Your task to perform on an android device: change notifications settings Image 0: 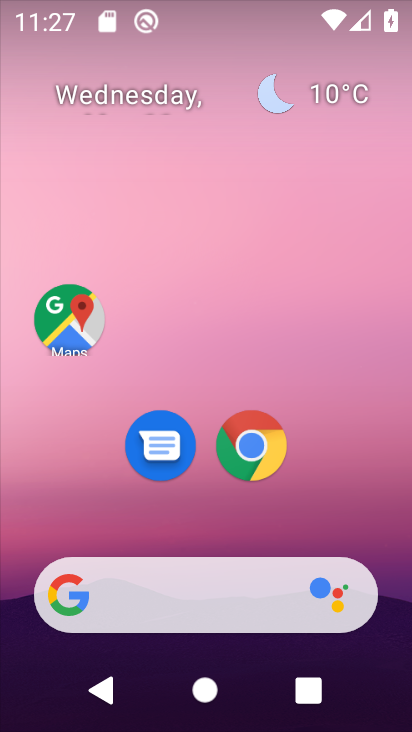
Step 0: drag from (210, 477) to (311, 41)
Your task to perform on an android device: change notifications settings Image 1: 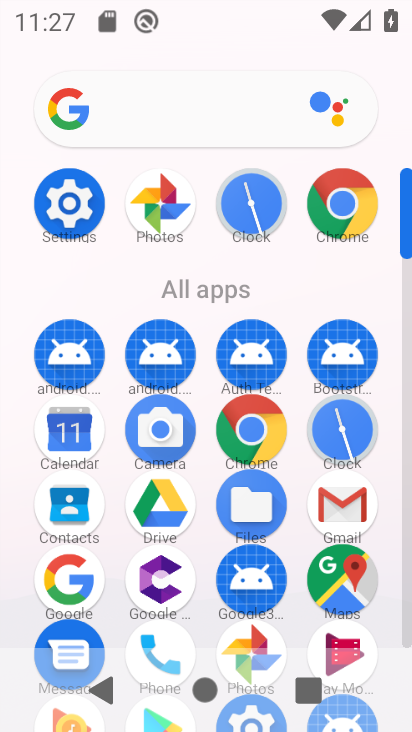
Step 1: click (66, 201)
Your task to perform on an android device: change notifications settings Image 2: 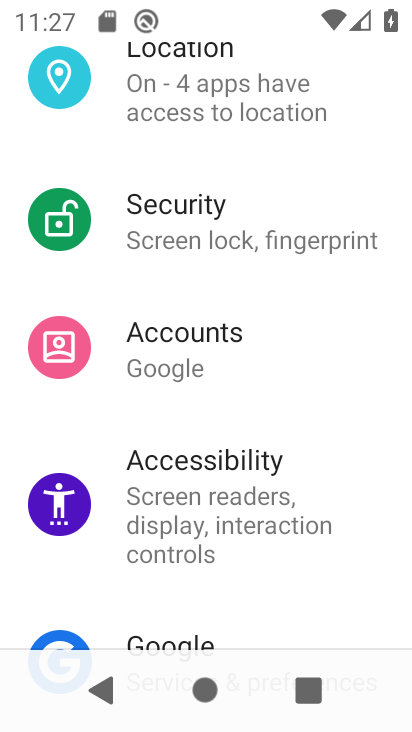
Step 2: drag from (237, 180) to (234, 710)
Your task to perform on an android device: change notifications settings Image 3: 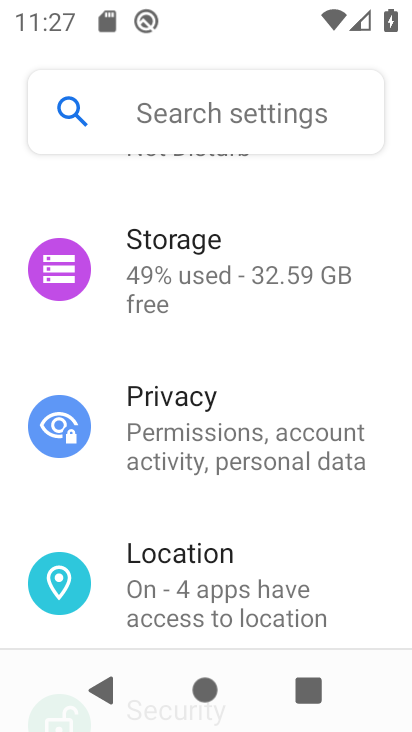
Step 3: drag from (192, 249) to (186, 715)
Your task to perform on an android device: change notifications settings Image 4: 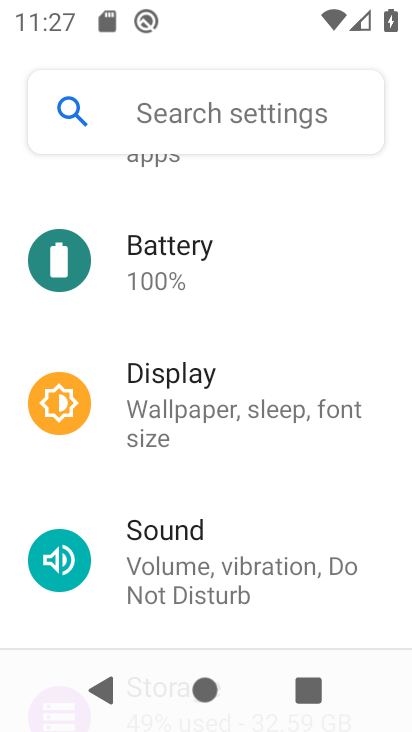
Step 4: drag from (205, 283) to (218, 731)
Your task to perform on an android device: change notifications settings Image 5: 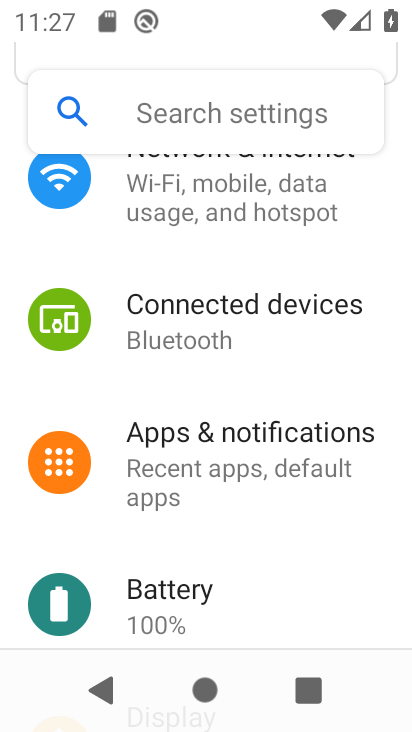
Step 5: click (259, 467)
Your task to perform on an android device: change notifications settings Image 6: 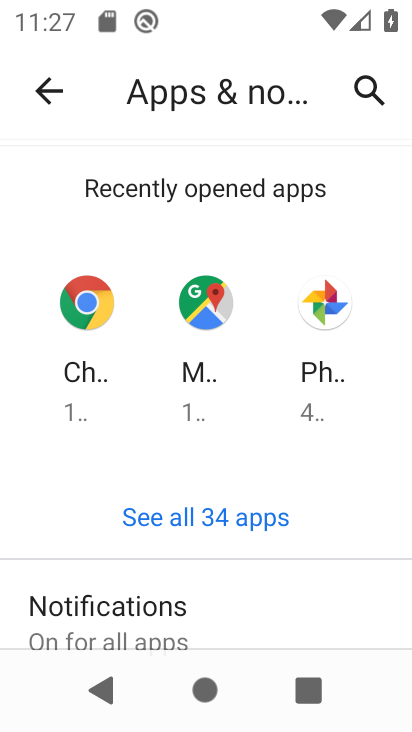
Step 6: drag from (201, 620) to (281, 273)
Your task to perform on an android device: change notifications settings Image 7: 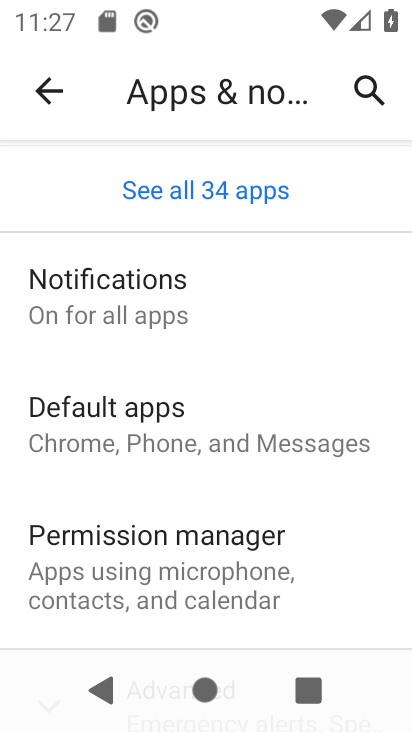
Step 7: click (163, 279)
Your task to perform on an android device: change notifications settings Image 8: 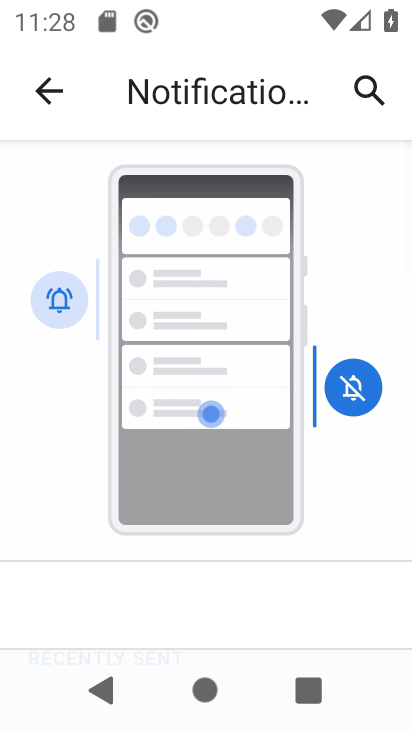
Step 8: drag from (206, 554) to (288, 71)
Your task to perform on an android device: change notifications settings Image 9: 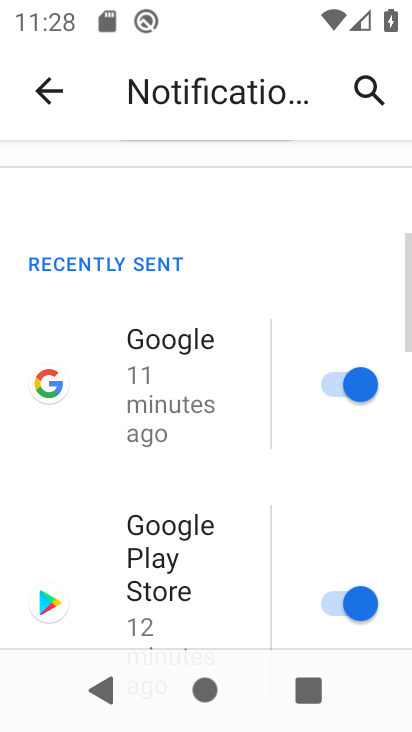
Step 9: drag from (222, 556) to (289, 107)
Your task to perform on an android device: change notifications settings Image 10: 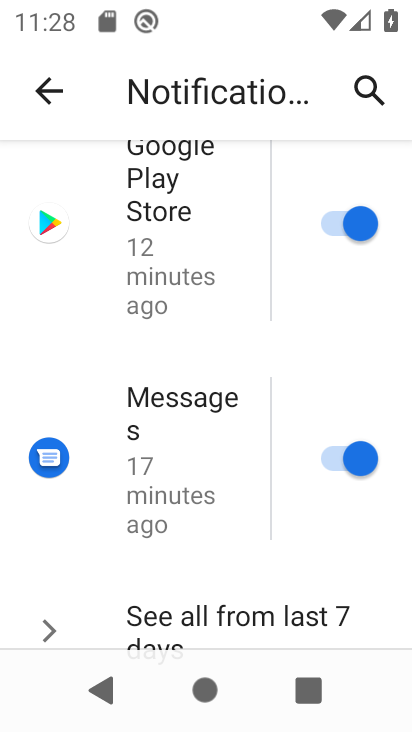
Step 10: drag from (213, 592) to (287, 113)
Your task to perform on an android device: change notifications settings Image 11: 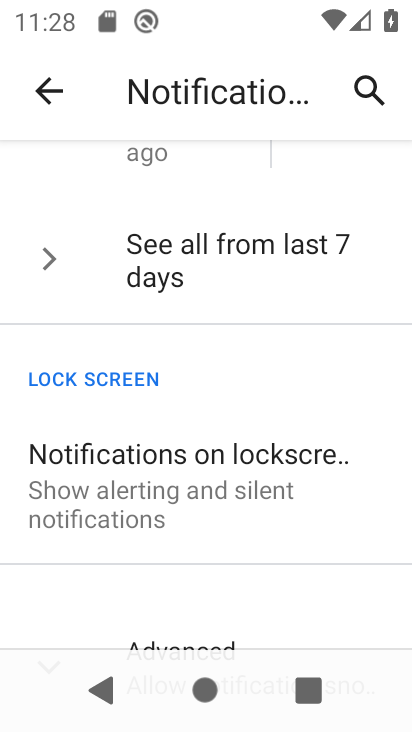
Step 11: drag from (173, 513) to (267, 51)
Your task to perform on an android device: change notifications settings Image 12: 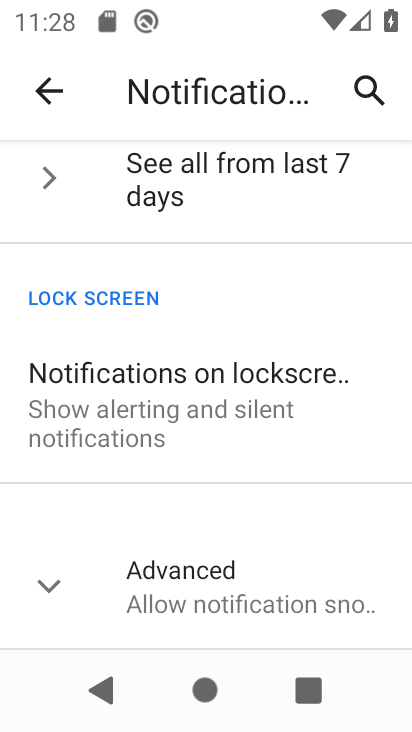
Step 12: drag from (237, 586) to (285, 192)
Your task to perform on an android device: change notifications settings Image 13: 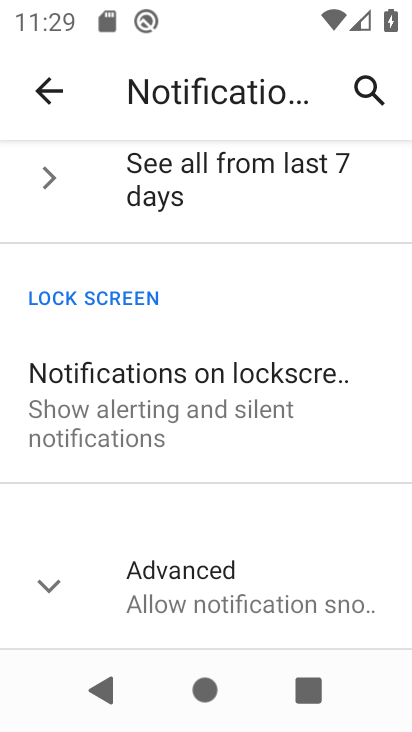
Step 13: drag from (223, 582) to (310, 86)
Your task to perform on an android device: change notifications settings Image 14: 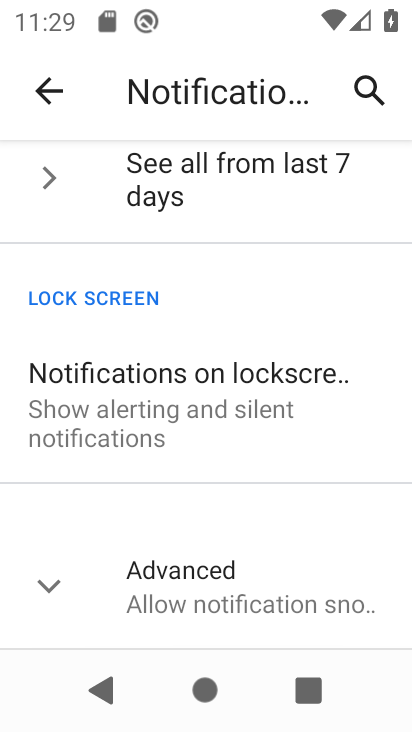
Step 14: click (181, 588)
Your task to perform on an android device: change notifications settings Image 15: 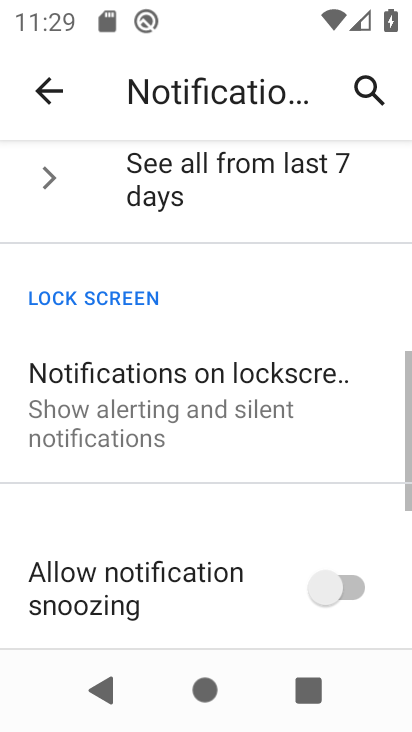
Step 15: drag from (196, 587) to (282, 138)
Your task to perform on an android device: change notifications settings Image 16: 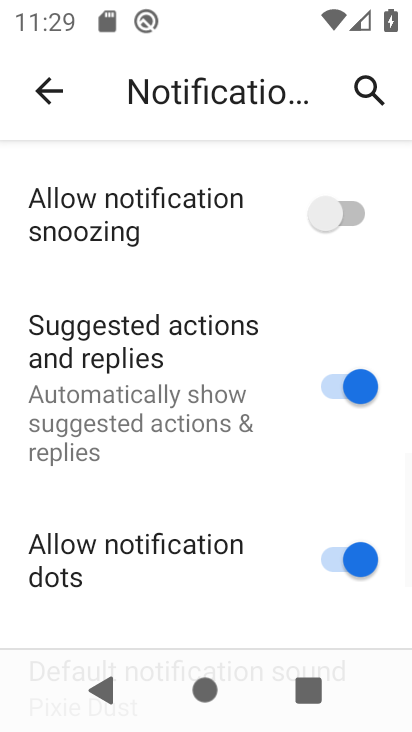
Step 16: drag from (196, 541) to (285, 67)
Your task to perform on an android device: change notifications settings Image 17: 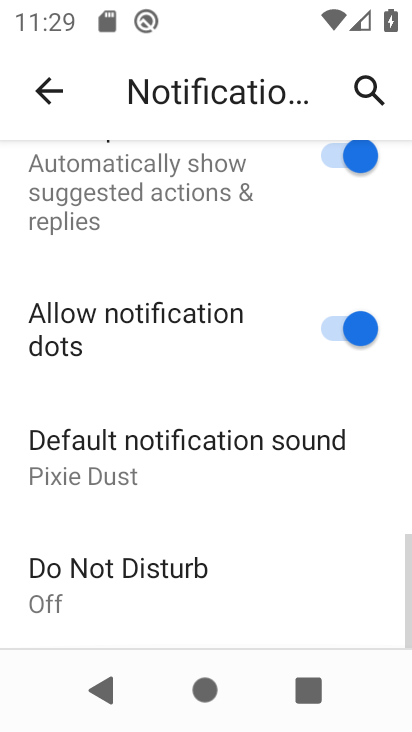
Step 17: drag from (226, 208) to (159, 705)
Your task to perform on an android device: change notifications settings Image 18: 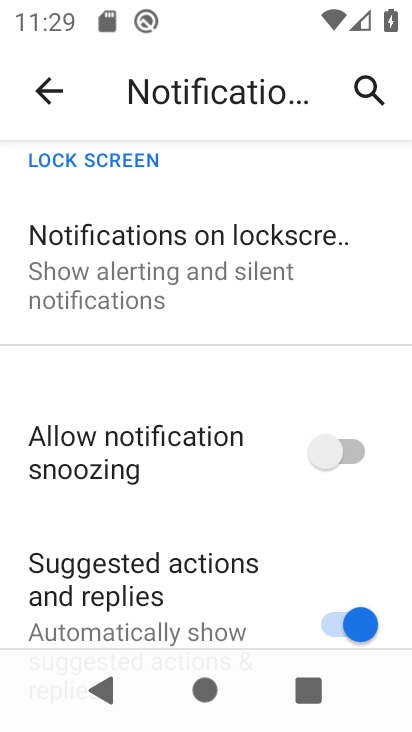
Step 18: drag from (270, 215) to (214, 572)
Your task to perform on an android device: change notifications settings Image 19: 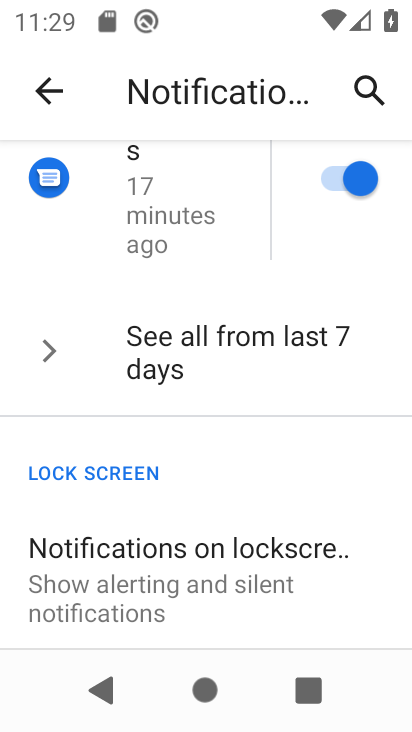
Step 19: drag from (192, 384) to (161, 641)
Your task to perform on an android device: change notifications settings Image 20: 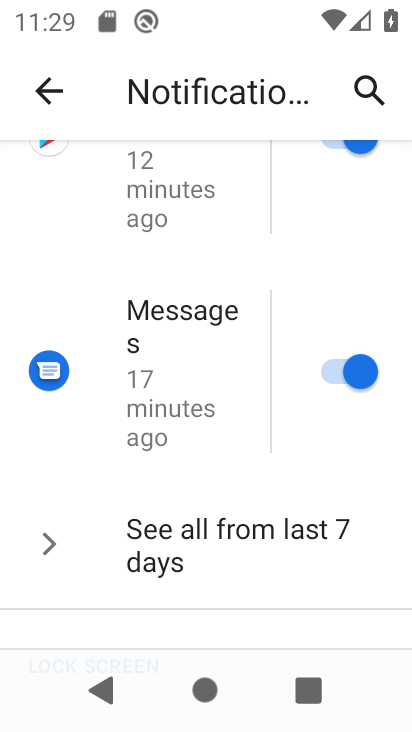
Step 20: drag from (165, 246) to (144, 597)
Your task to perform on an android device: change notifications settings Image 21: 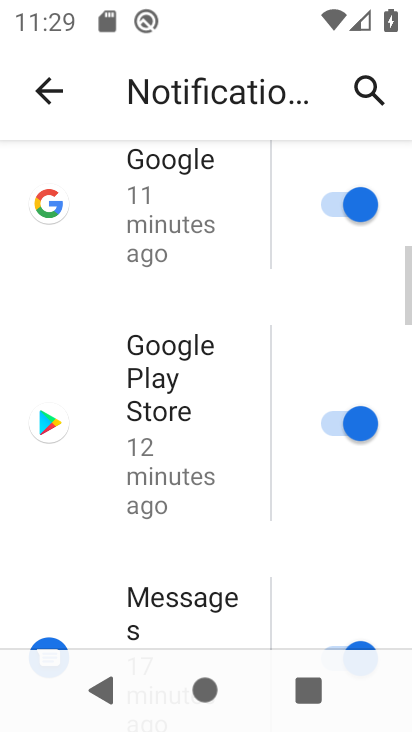
Step 21: drag from (179, 228) to (167, 658)
Your task to perform on an android device: change notifications settings Image 22: 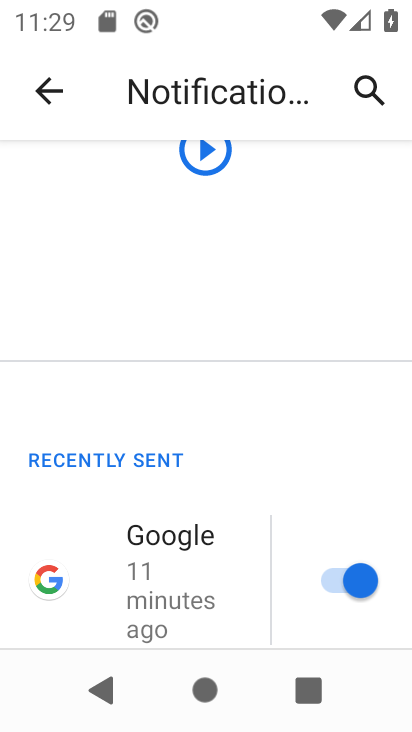
Step 22: drag from (192, 300) to (149, 722)
Your task to perform on an android device: change notifications settings Image 23: 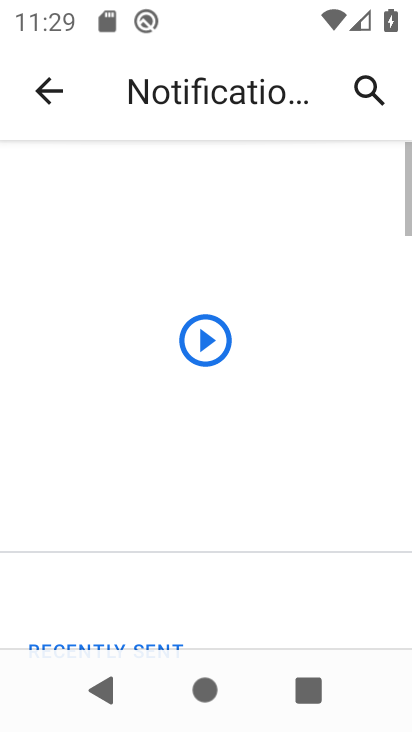
Step 23: drag from (149, 481) to (271, 61)
Your task to perform on an android device: change notifications settings Image 24: 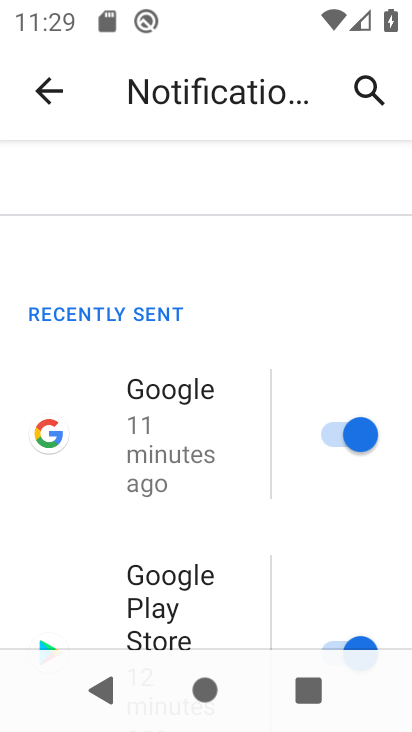
Step 24: drag from (199, 521) to (287, 87)
Your task to perform on an android device: change notifications settings Image 25: 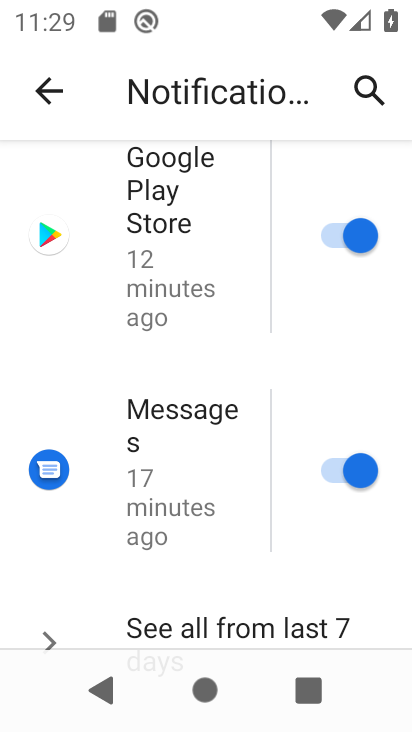
Step 25: drag from (196, 245) to (164, 720)
Your task to perform on an android device: change notifications settings Image 26: 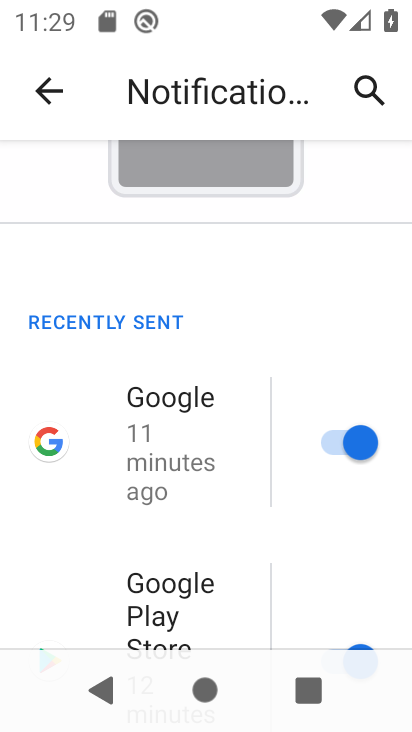
Step 26: click (354, 444)
Your task to perform on an android device: change notifications settings Image 27: 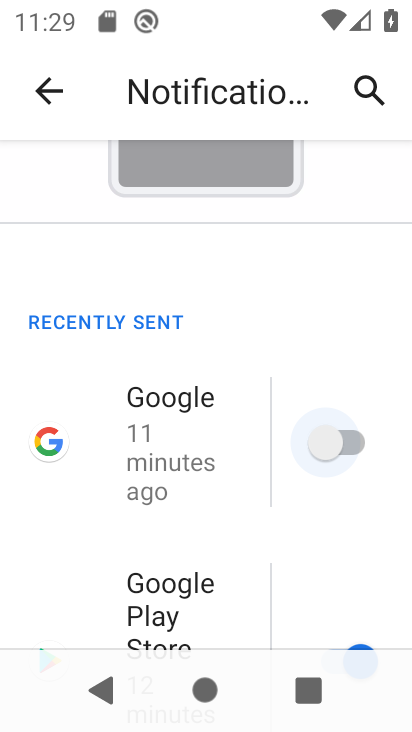
Step 27: task complete